Your task to perform on an android device: toggle notifications settings in the gmail app Image 0: 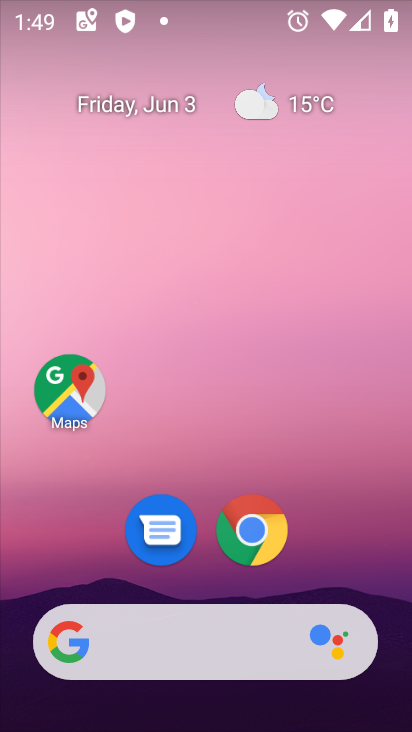
Step 0: drag from (371, 541) to (302, 117)
Your task to perform on an android device: toggle notifications settings in the gmail app Image 1: 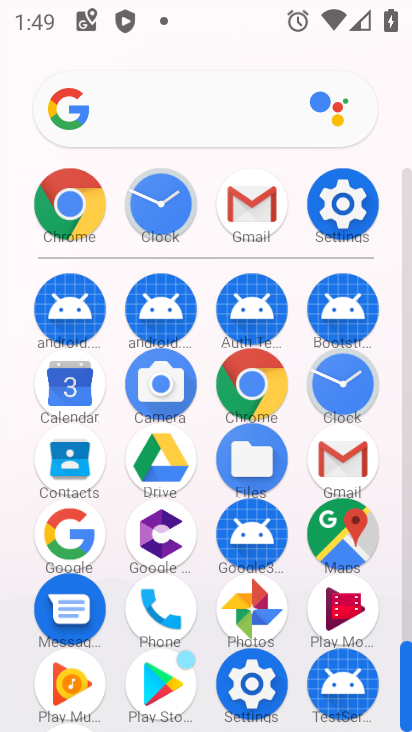
Step 1: click (241, 208)
Your task to perform on an android device: toggle notifications settings in the gmail app Image 2: 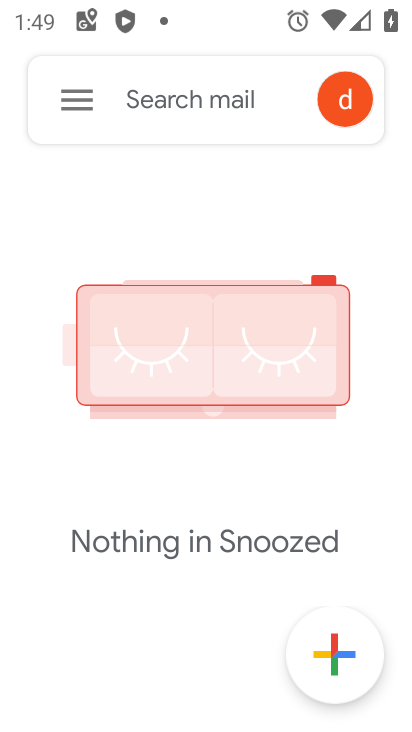
Step 2: click (74, 102)
Your task to perform on an android device: toggle notifications settings in the gmail app Image 3: 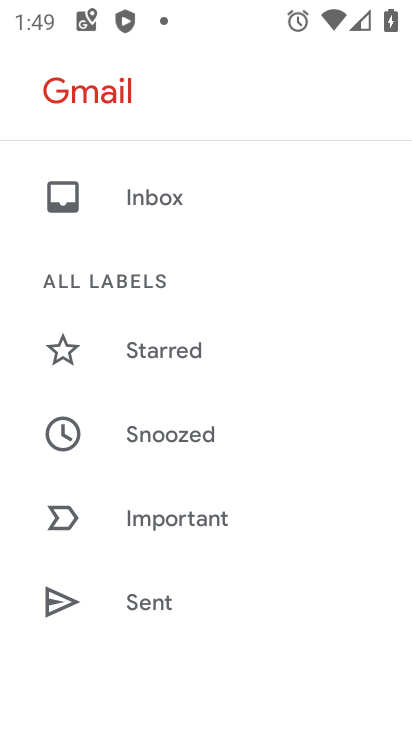
Step 3: drag from (22, 625) to (102, 33)
Your task to perform on an android device: toggle notifications settings in the gmail app Image 4: 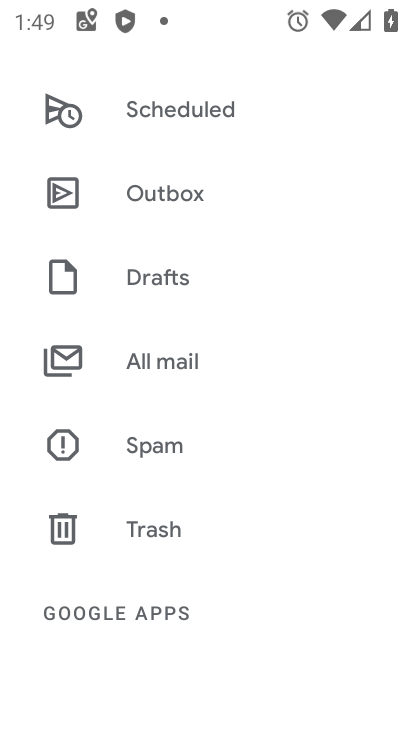
Step 4: drag from (310, 594) to (274, 196)
Your task to perform on an android device: toggle notifications settings in the gmail app Image 5: 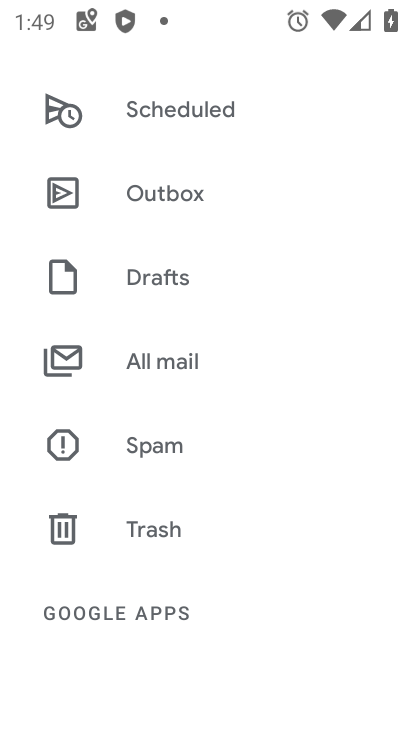
Step 5: drag from (263, 616) to (265, 138)
Your task to perform on an android device: toggle notifications settings in the gmail app Image 6: 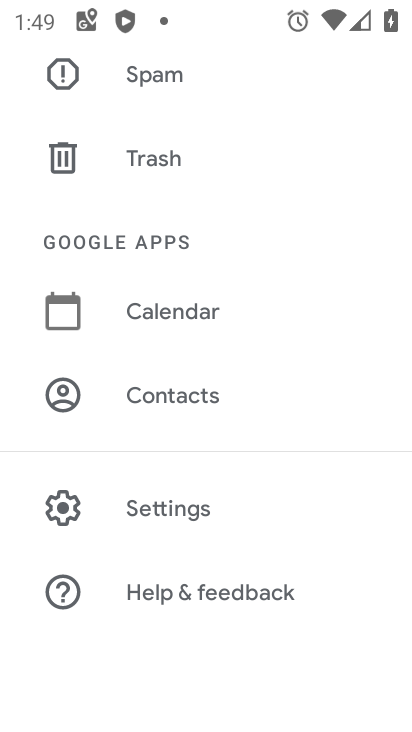
Step 6: click (181, 509)
Your task to perform on an android device: toggle notifications settings in the gmail app Image 7: 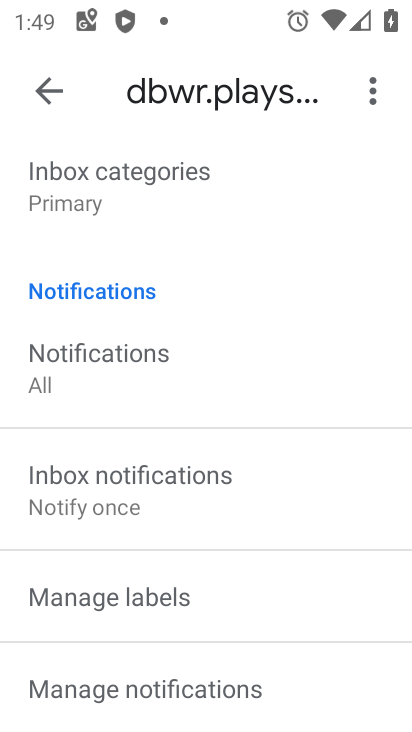
Step 7: click (168, 682)
Your task to perform on an android device: toggle notifications settings in the gmail app Image 8: 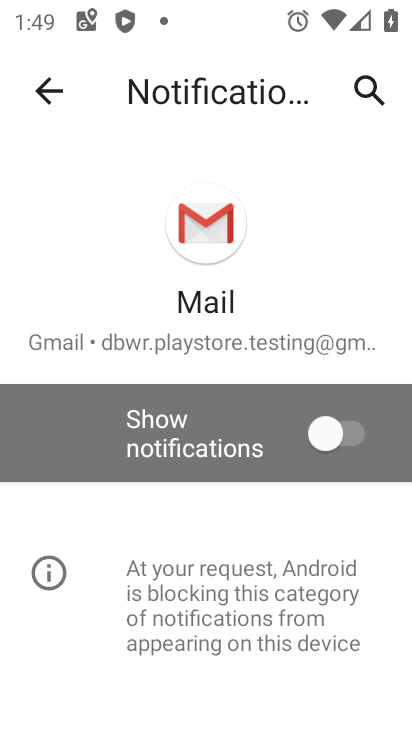
Step 8: click (336, 446)
Your task to perform on an android device: toggle notifications settings in the gmail app Image 9: 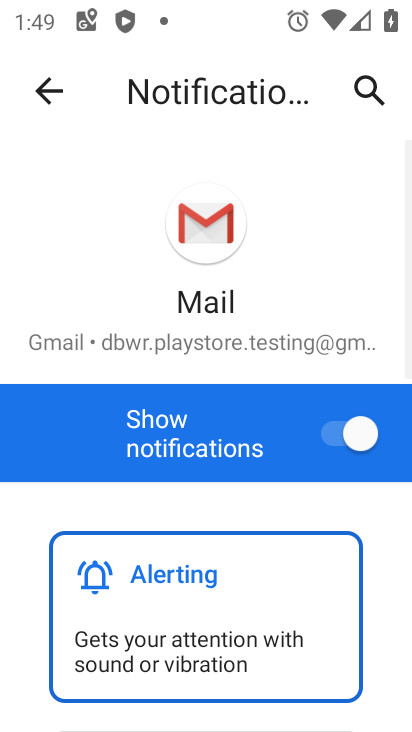
Step 9: task complete